Your task to perform on an android device: turn on the 12-hour format for clock Image 0: 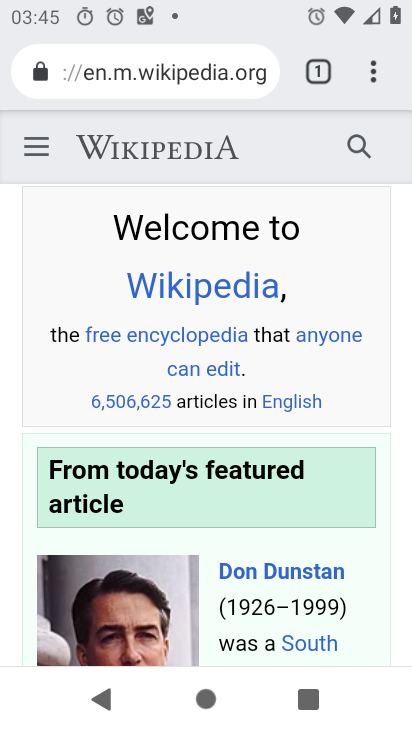
Step 0: press home button
Your task to perform on an android device: turn on the 12-hour format for clock Image 1: 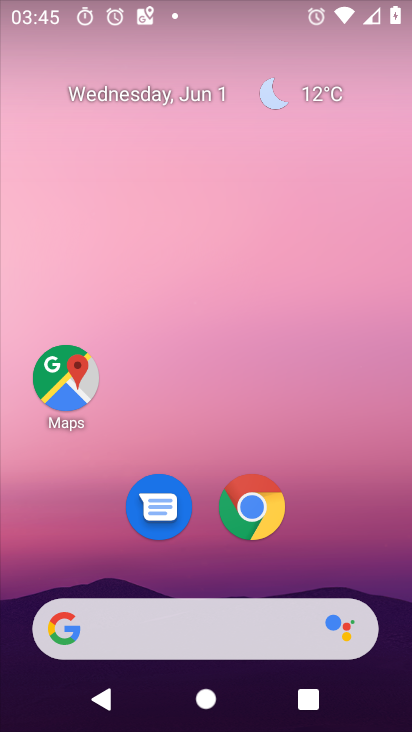
Step 1: drag from (346, 559) to (272, 8)
Your task to perform on an android device: turn on the 12-hour format for clock Image 2: 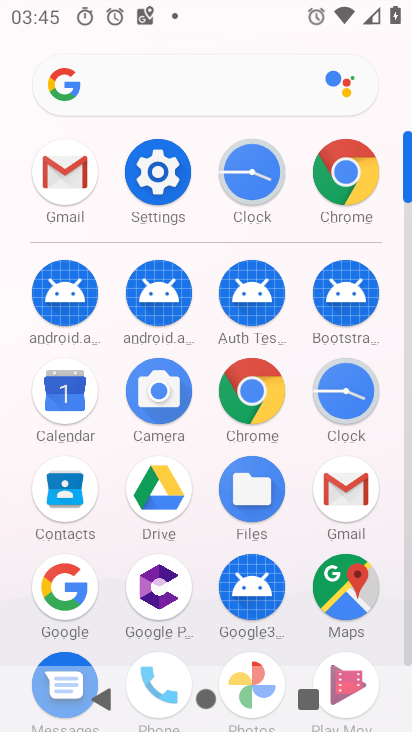
Step 2: click (250, 180)
Your task to perform on an android device: turn on the 12-hour format for clock Image 3: 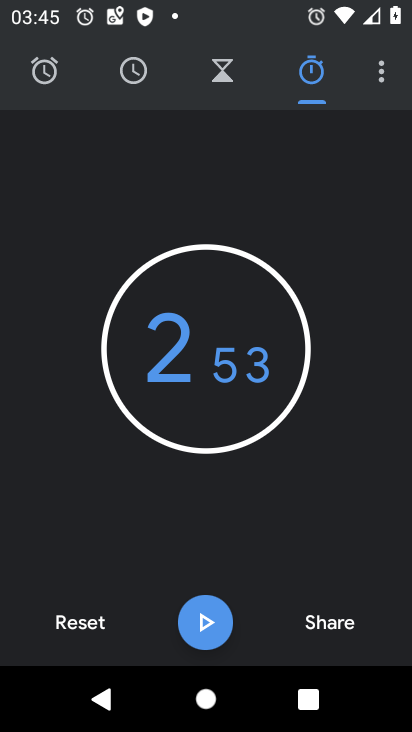
Step 3: click (381, 82)
Your task to perform on an android device: turn on the 12-hour format for clock Image 4: 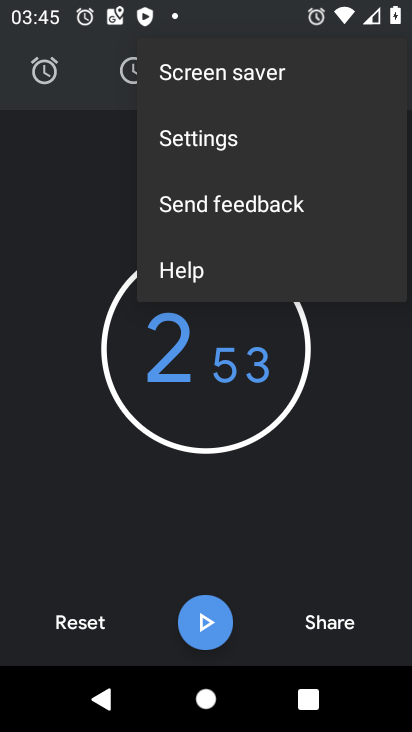
Step 4: click (214, 156)
Your task to perform on an android device: turn on the 12-hour format for clock Image 5: 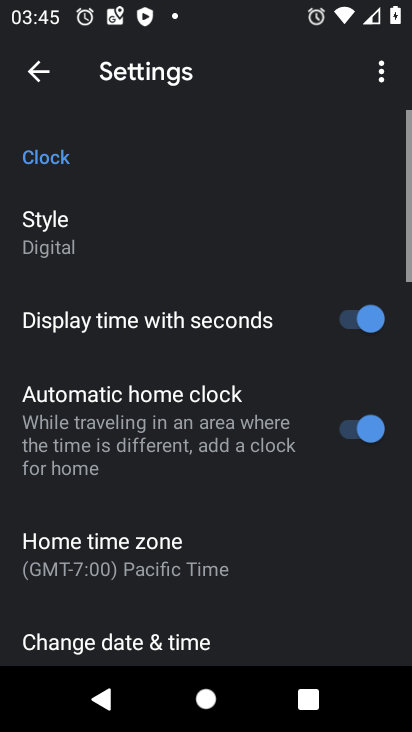
Step 5: drag from (284, 538) to (266, 269)
Your task to perform on an android device: turn on the 12-hour format for clock Image 6: 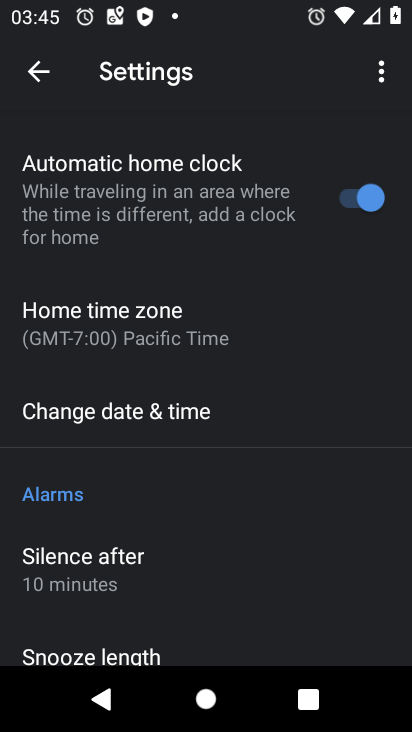
Step 6: click (121, 407)
Your task to perform on an android device: turn on the 12-hour format for clock Image 7: 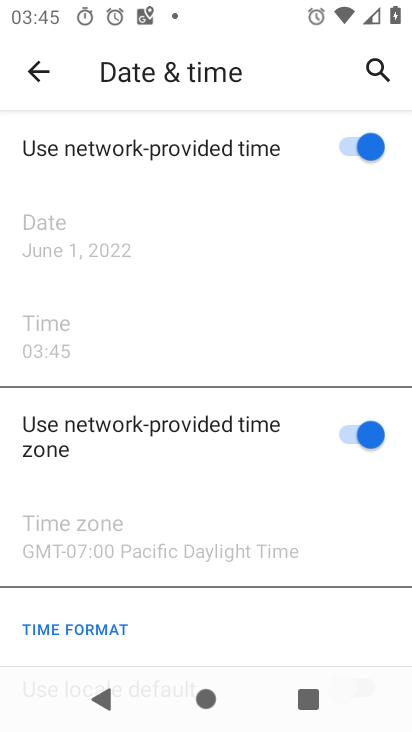
Step 7: drag from (166, 522) to (162, 213)
Your task to perform on an android device: turn on the 12-hour format for clock Image 8: 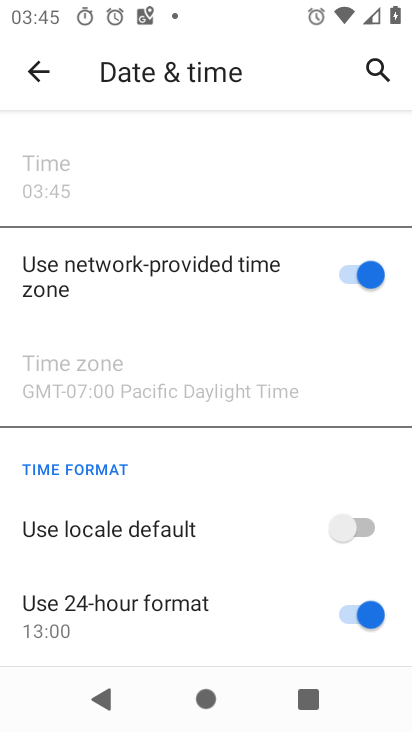
Step 8: click (372, 610)
Your task to perform on an android device: turn on the 12-hour format for clock Image 9: 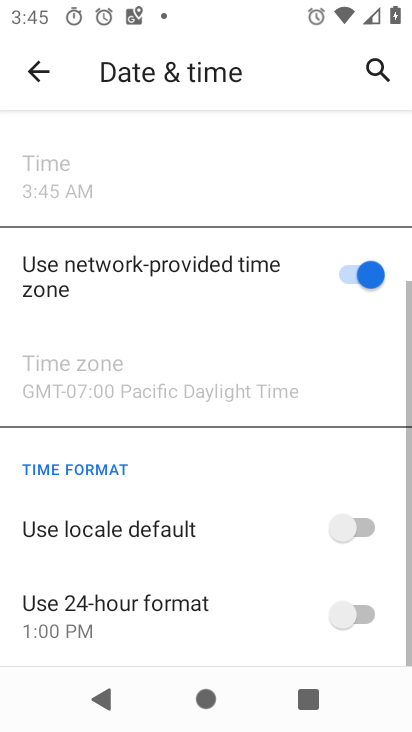
Step 9: click (351, 527)
Your task to perform on an android device: turn on the 12-hour format for clock Image 10: 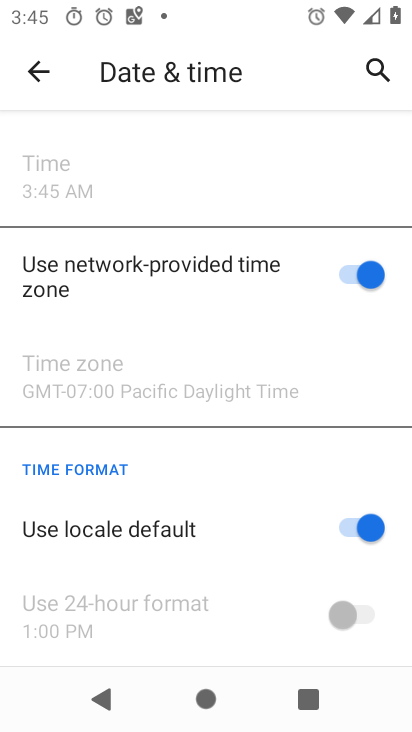
Step 10: task complete